Your task to perform on an android device: turn on data saver in the chrome app Image 0: 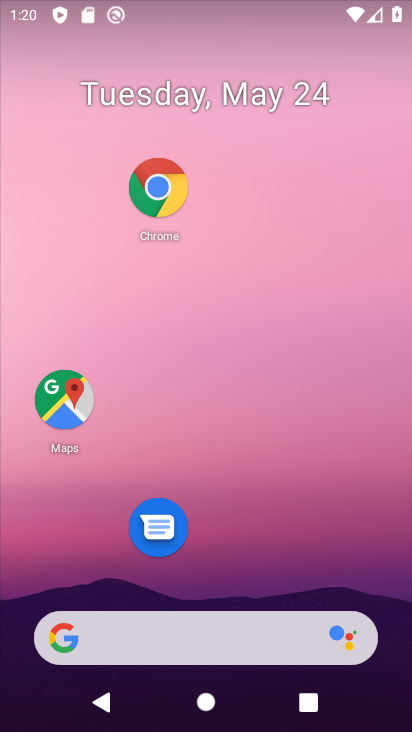
Step 0: click (165, 195)
Your task to perform on an android device: turn on data saver in the chrome app Image 1: 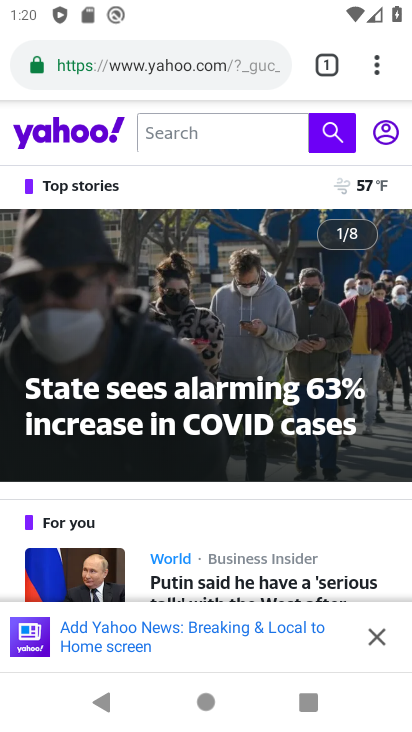
Step 1: click (379, 70)
Your task to perform on an android device: turn on data saver in the chrome app Image 2: 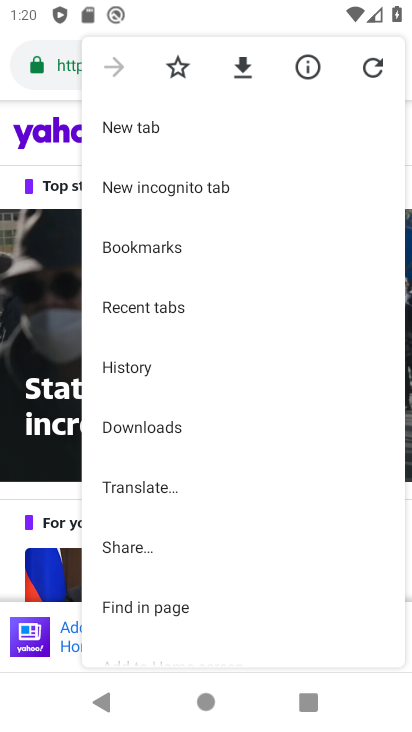
Step 2: drag from (223, 522) to (233, 199)
Your task to perform on an android device: turn on data saver in the chrome app Image 3: 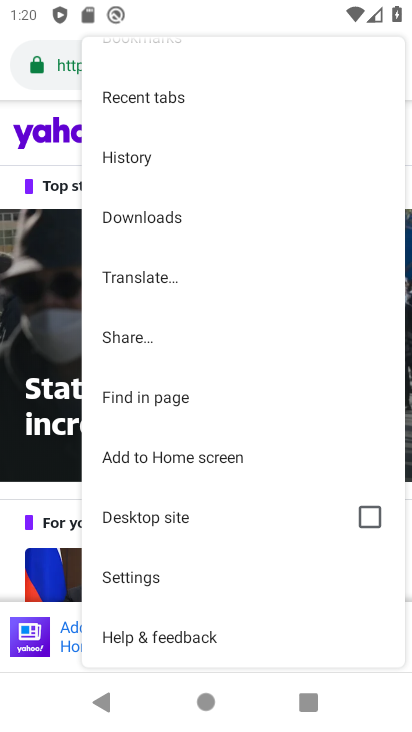
Step 3: click (128, 582)
Your task to perform on an android device: turn on data saver in the chrome app Image 4: 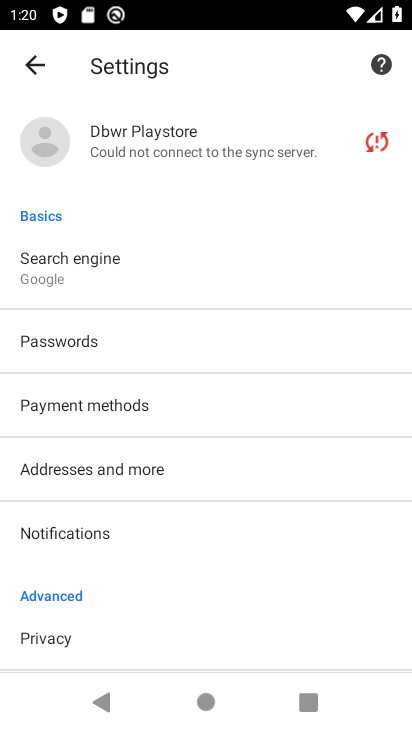
Step 4: drag from (180, 607) to (186, 312)
Your task to perform on an android device: turn on data saver in the chrome app Image 5: 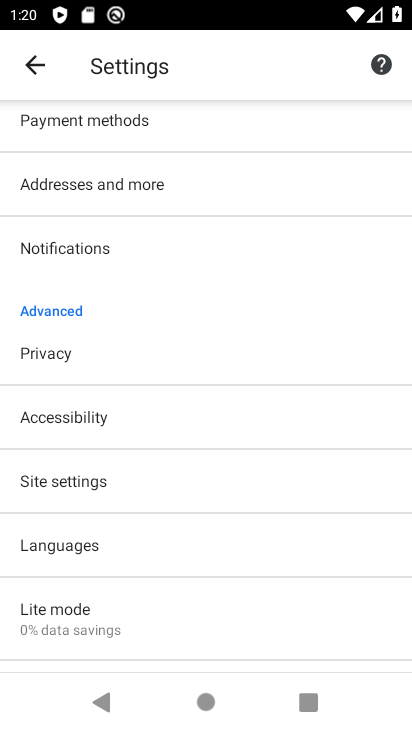
Step 5: click (60, 622)
Your task to perform on an android device: turn on data saver in the chrome app Image 6: 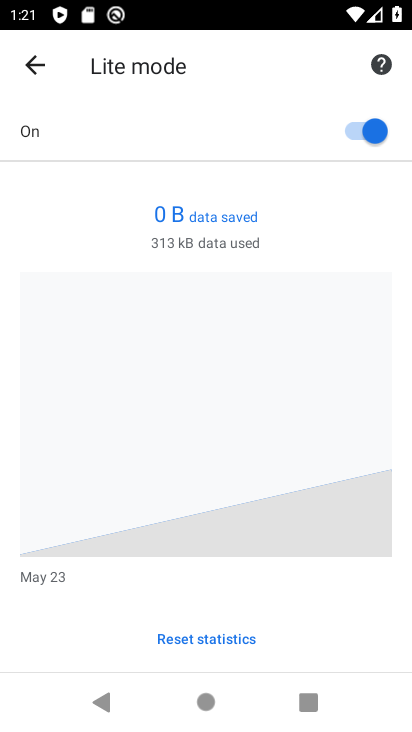
Step 6: task complete